Your task to perform on an android device: turn on airplane mode Image 0: 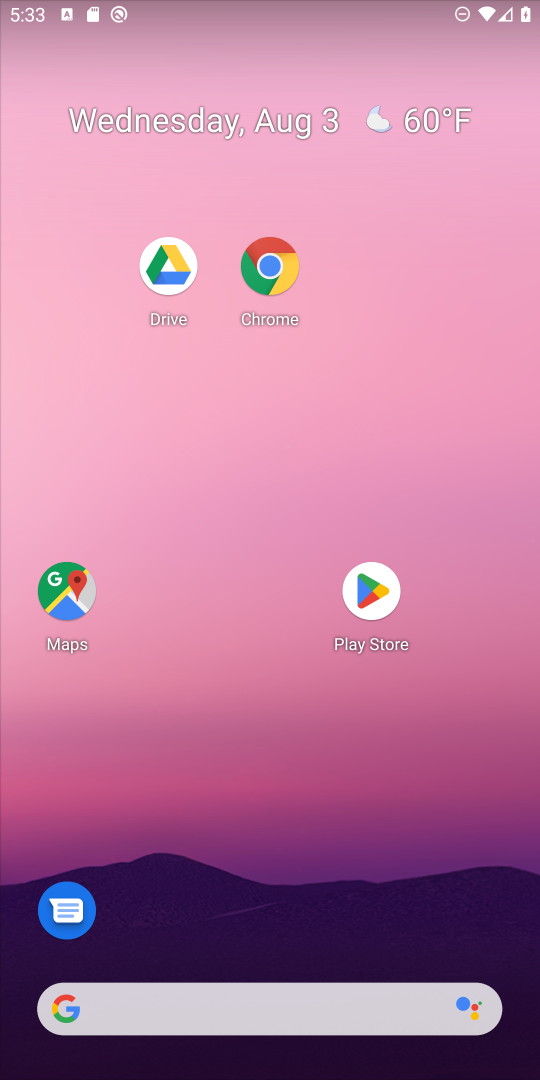
Step 0: drag from (280, 932) to (502, 5)
Your task to perform on an android device: turn on airplane mode Image 1: 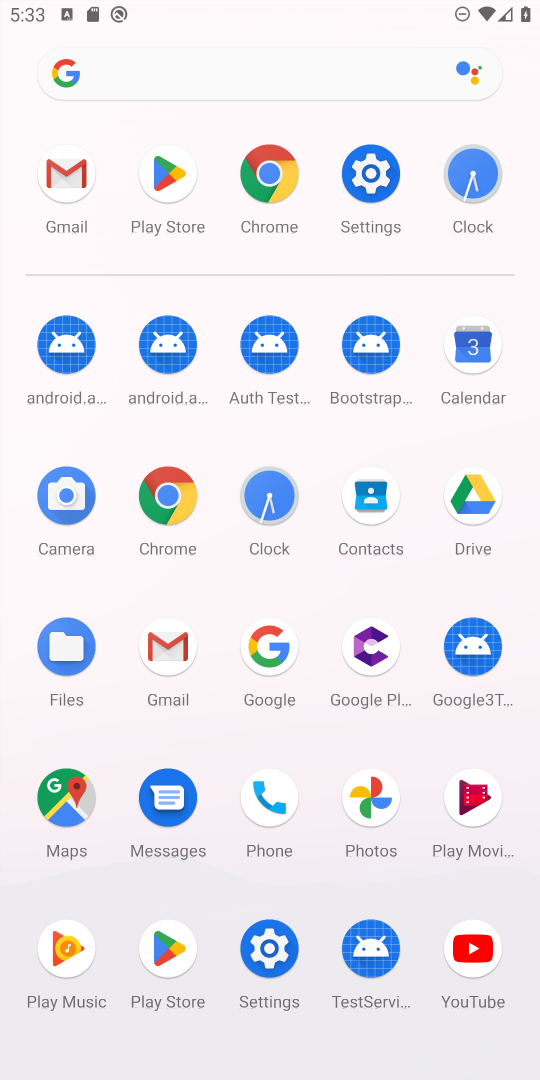
Step 1: click (368, 209)
Your task to perform on an android device: turn on airplane mode Image 2: 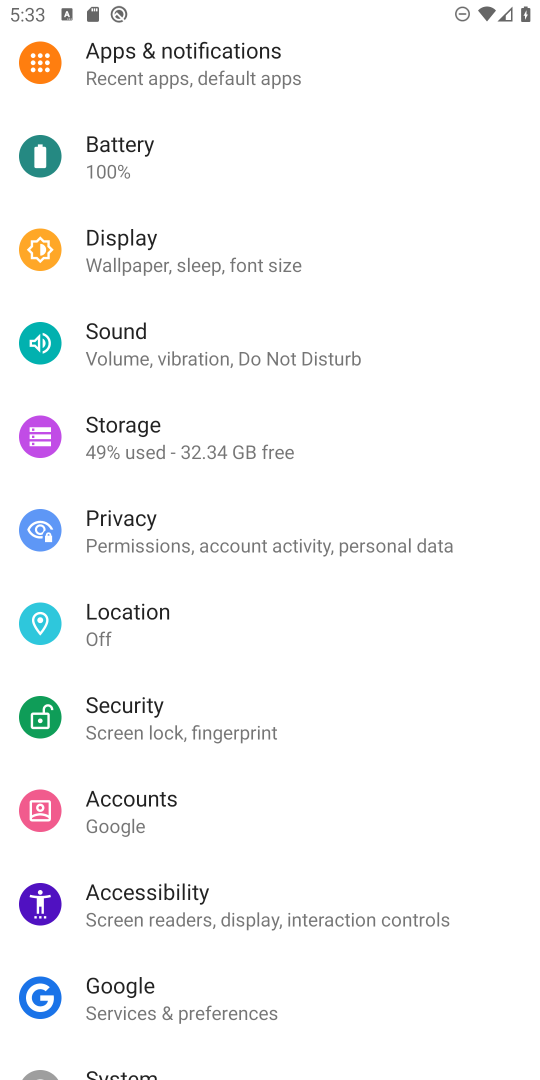
Step 2: drag from (277, 255) to (248, 1022)
Your task to perform on an android device: turn on airplane mode Image 3: 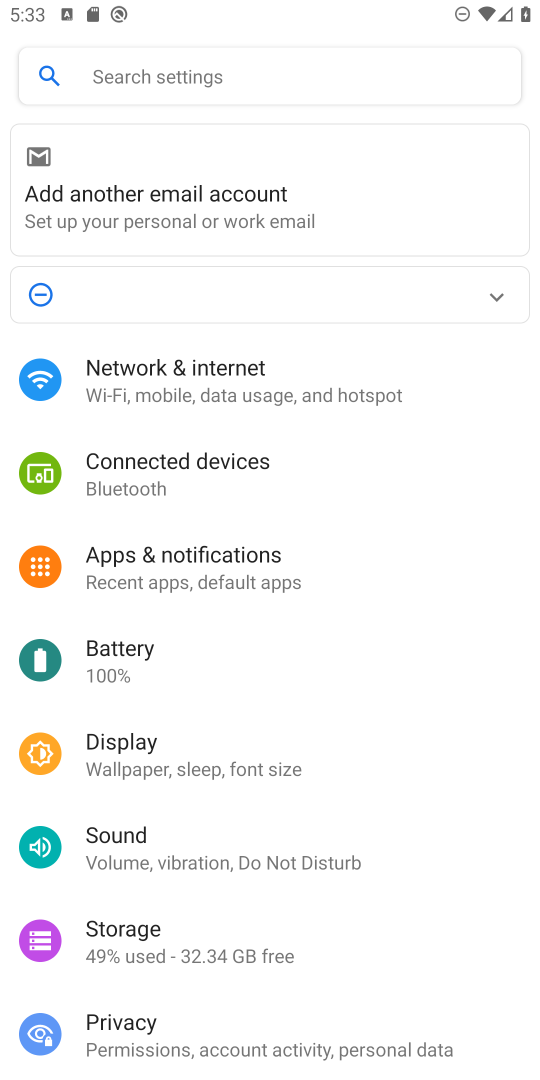
Step 3: click (323, 387)
Your task to perform on an android device: turn on airplane mode Image 4: 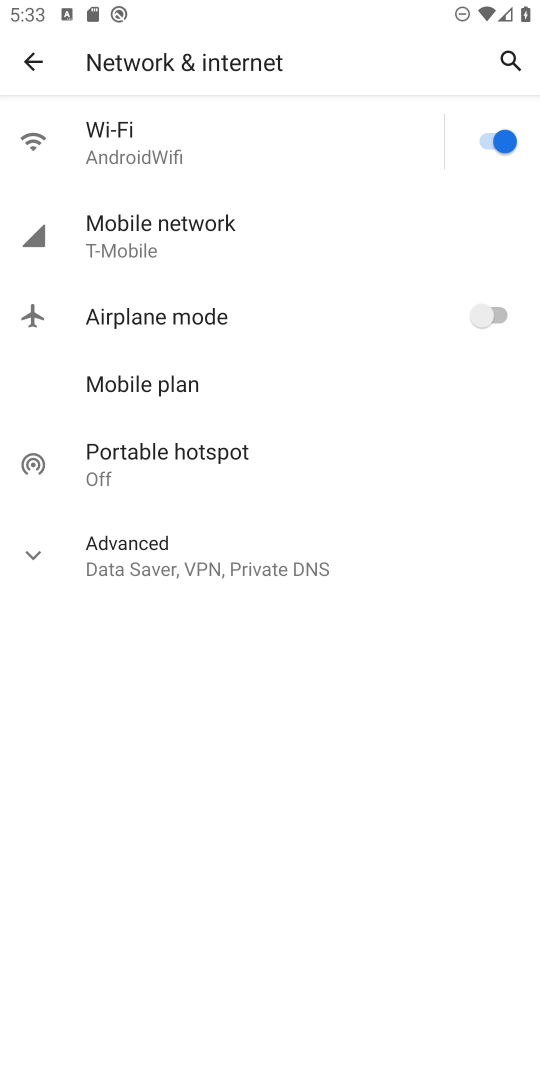
Step 4: click (496, 315)
Your task to perform on an android device: turn on airplane mode Image 5: 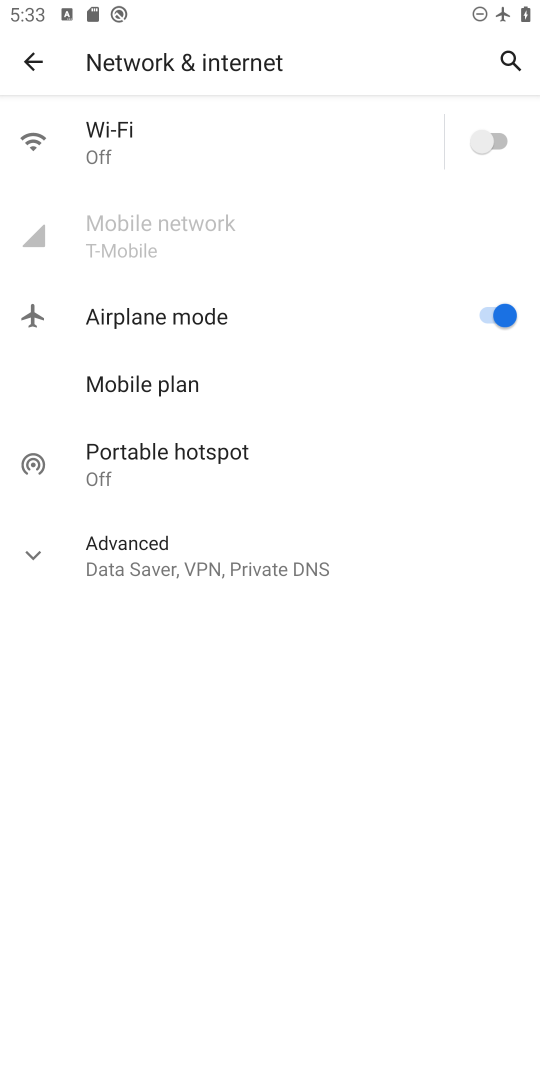
Step 5: task complete